Your task to perform on an android device: Open display settings Image 0: 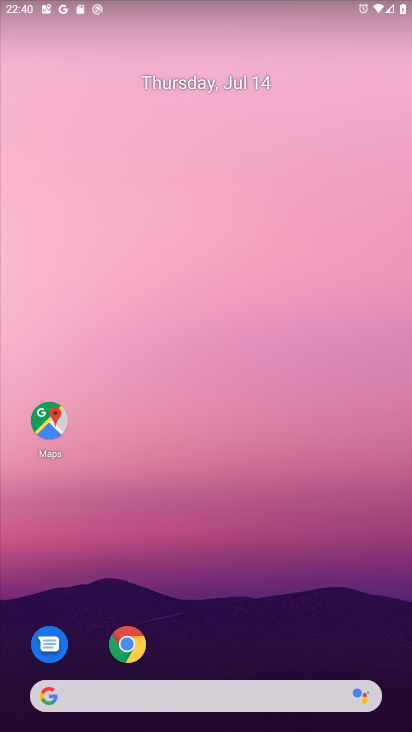
Step 0: drag from (194, 573) to (192, 101)
Your task to perform on an android device: Open display settings Image 1: 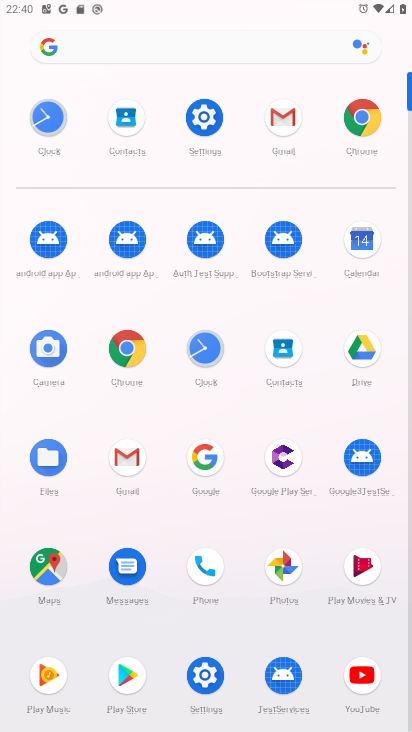
Step 1: drag from (153, 646) to (174, 0)
Your task to perform on an android device: Open display settings Image 2: 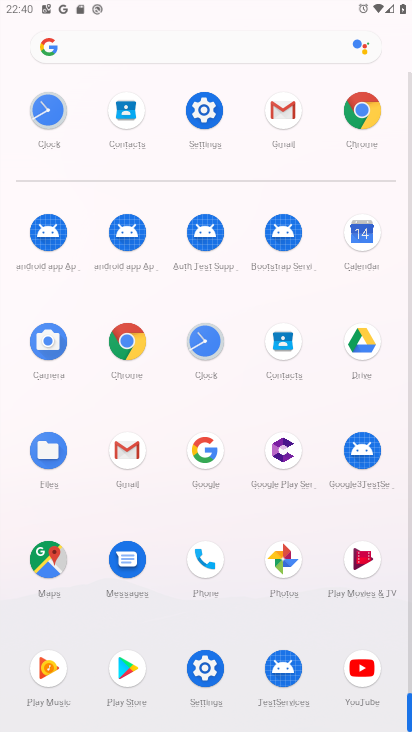
Step 2: click (204, 71)
Your task to perform on an android device: Open display settings Image 3: 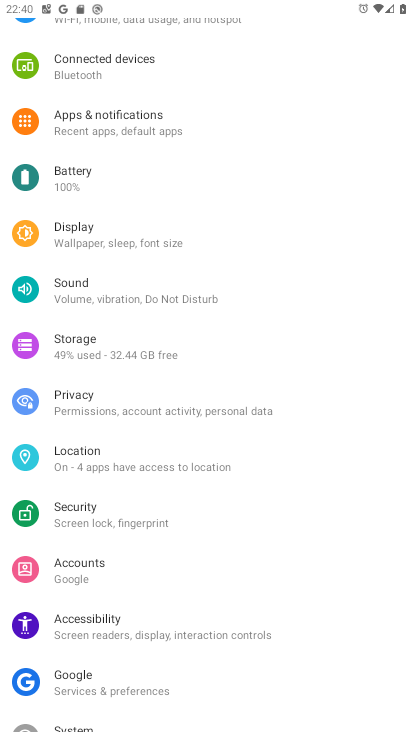
Step 3: click (162, 244)
Your task to perform on an android device: Open display settings Image 4: 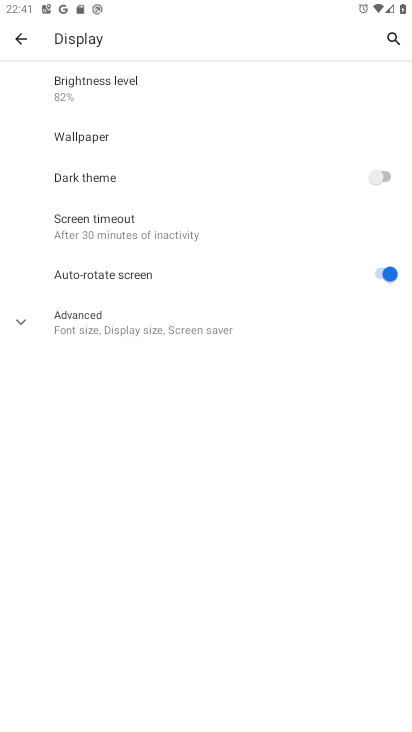
Step 4: task complete